Your task to perform on an android device: Open a new private tab in Chrome Image 0: 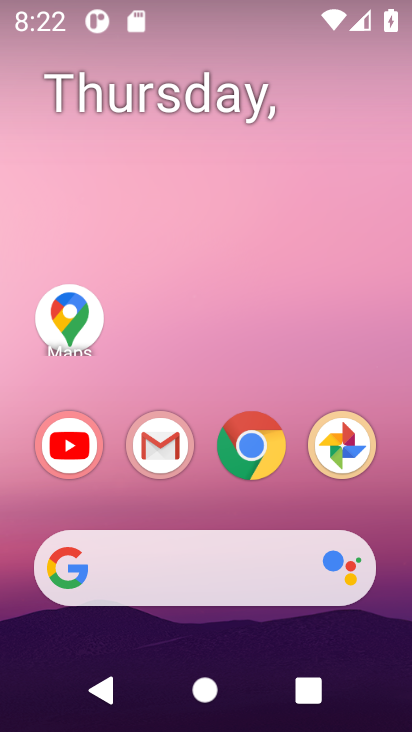
Step 0: click (270, 464)
Your task to perform on an android device: Open a new private tab in Chrome Image 1: 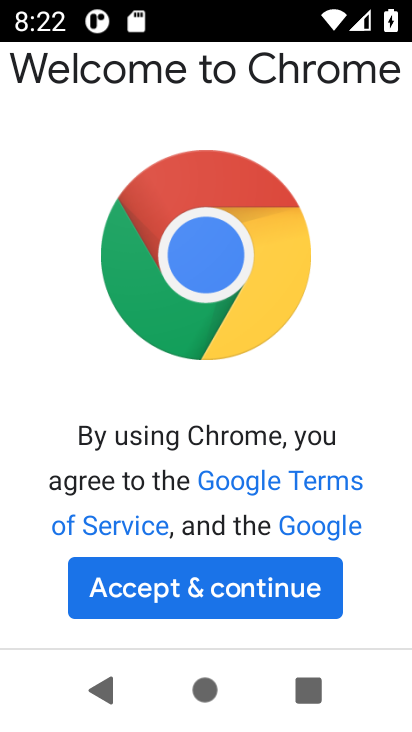
Step 1: click (222, 582)
Your task to perform on an android device: Open a new private tab in Chrome Image 2: 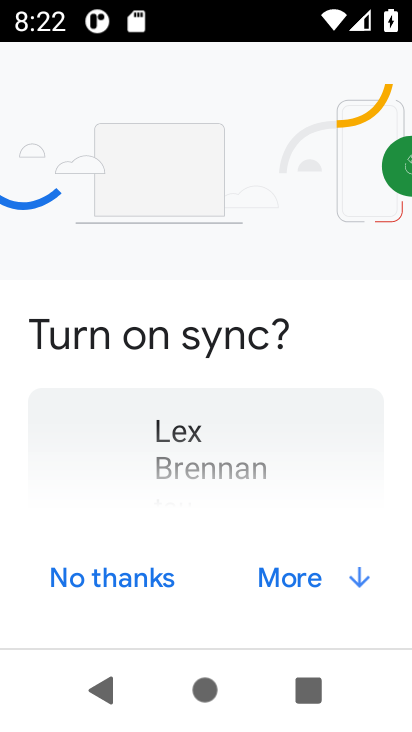
Step 2: click (208, 661)
Your task to perform on an android device: Open a new private tab in Chrome Image 3: 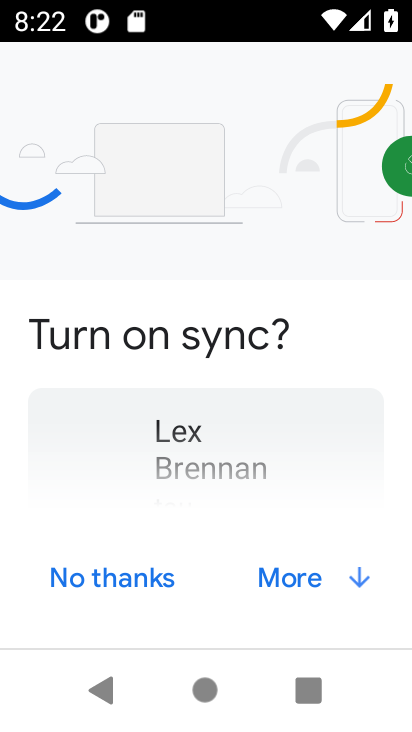
Step 3: click (164, 573)
Your task to perform on an android device: Open a new private tab in Chrome Image 4: 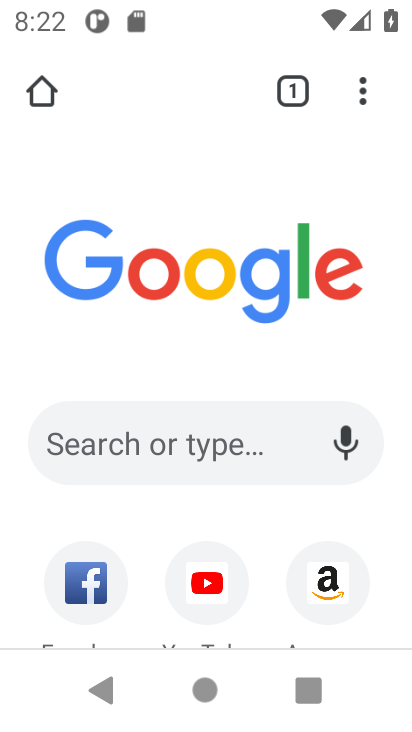
Step 4: click (372, 85)
Your task to perform on an android device: Open a new private tab in Chrome Image 5: 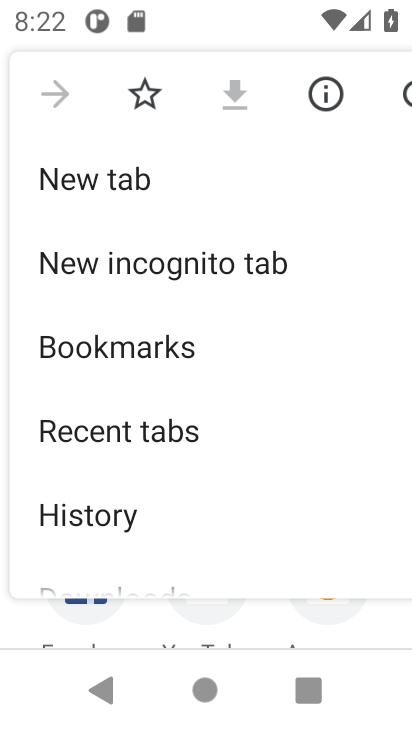
Step 5: click (258, 273)
Your task to perform on an android device: Open a new private tab in Chrome Image 6: 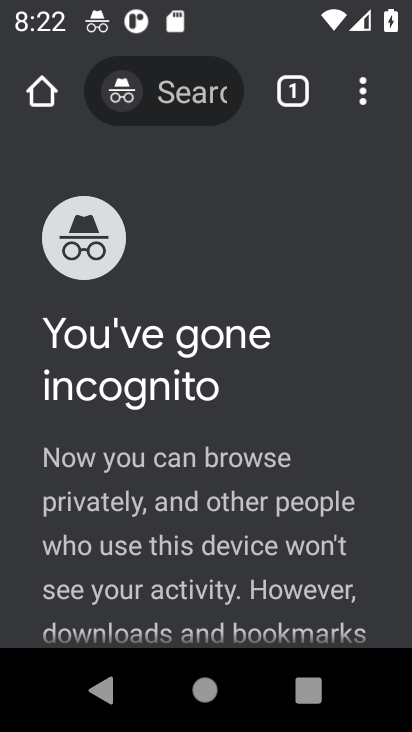
Step 6: task complete